Your task to perform on an android device: Open ESPN.com Image 0: 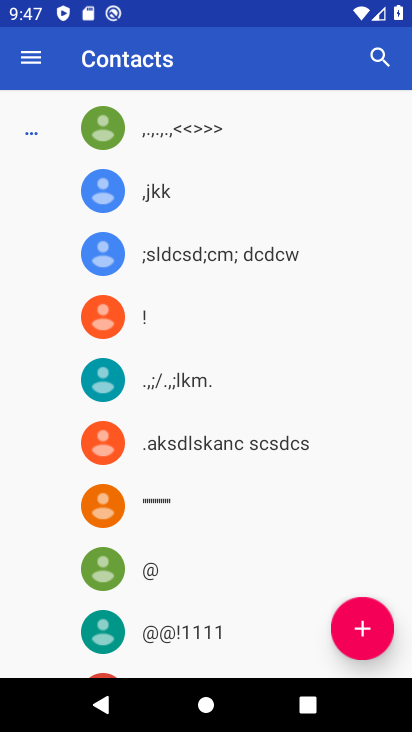
Step 0: press home button
Your task to perform on an android device: Open ESPN.com Image 1: 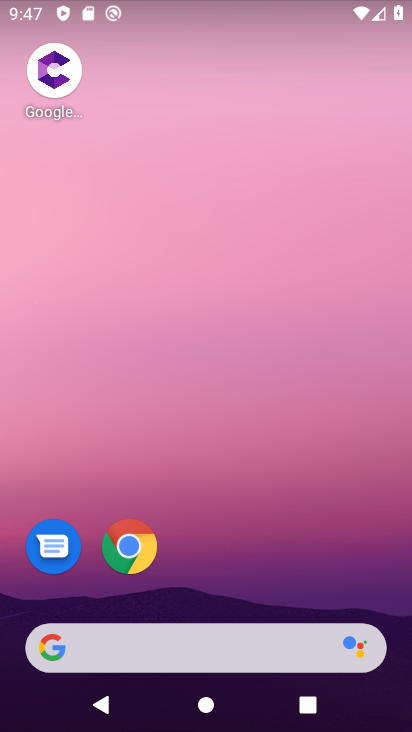
Step 1: drag from (222, 616) to (201, 291)
Your task to perform on an android device: Open ESPN.com Image 2: 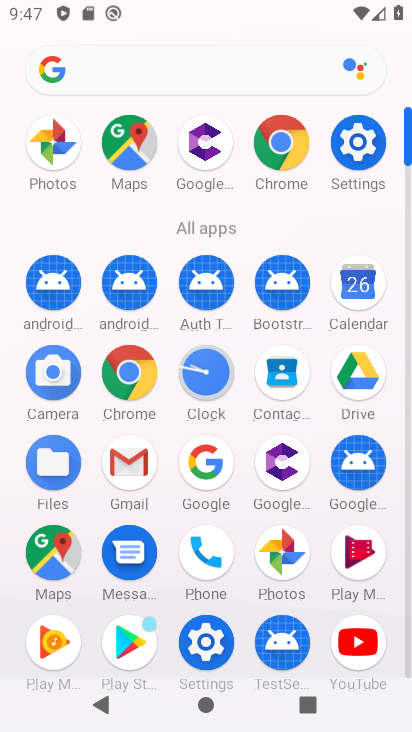
Step 2: click (352, 153)
Your task to perform on an android device: Open ESPN.com Image 3: 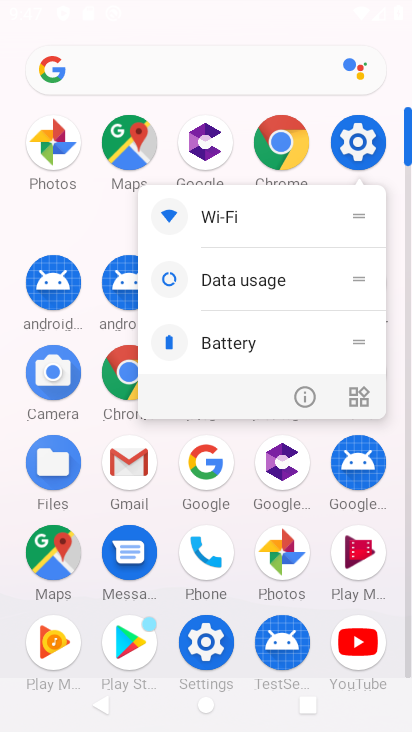
Step 3: click (251, 213)
Your task to perform on an android device: Open ESPN.com Image 4: 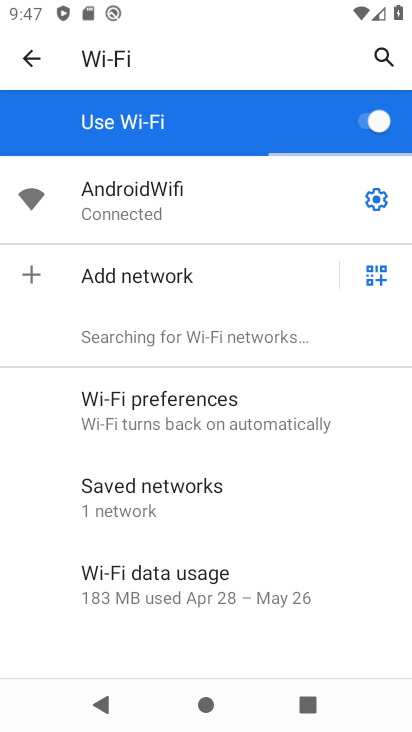
Step 4: click (227, 225)
Your task to perform on an android device: Open ESPN.com Image 5: 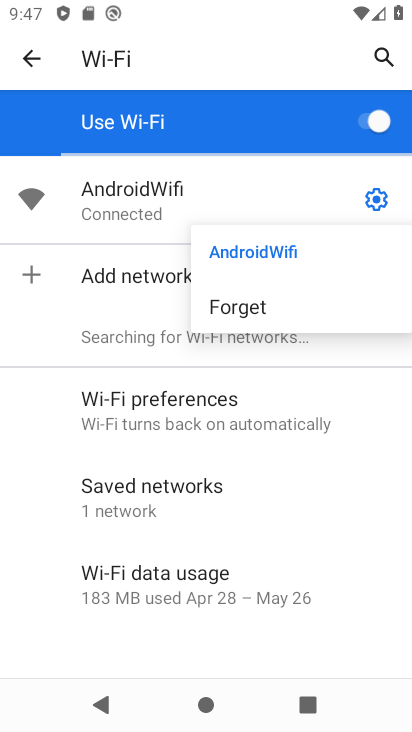
Step 5: task complete